Your task to perform on an android device: Go to internet settings Image 0: 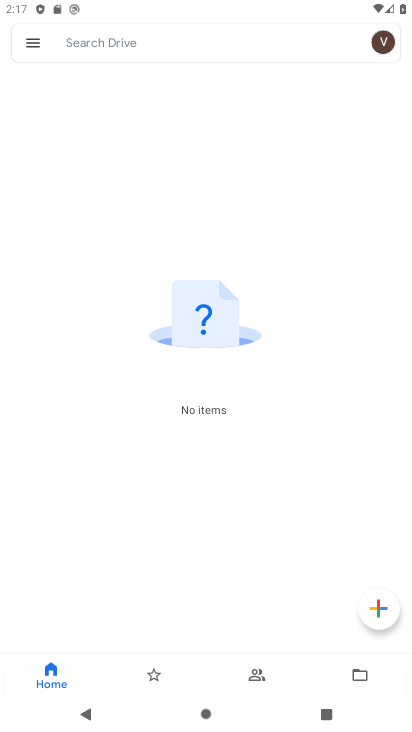
Step 0: press home button
Your task to perform on an android device: Go to internet settings Image 1: 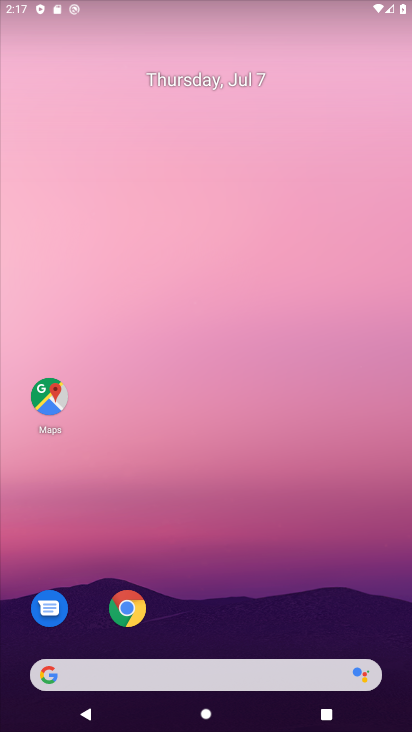
Step 1: drag from (241, 566) to (239, 88)
Your task to perform on an android device: Go to internet settings Image 2: 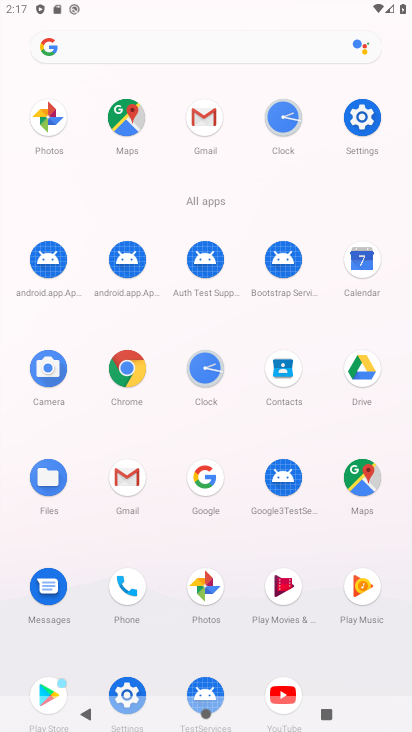
Step 2: click (362, 115)
Your task to perform on an android device: Go to internet settings Image 3: 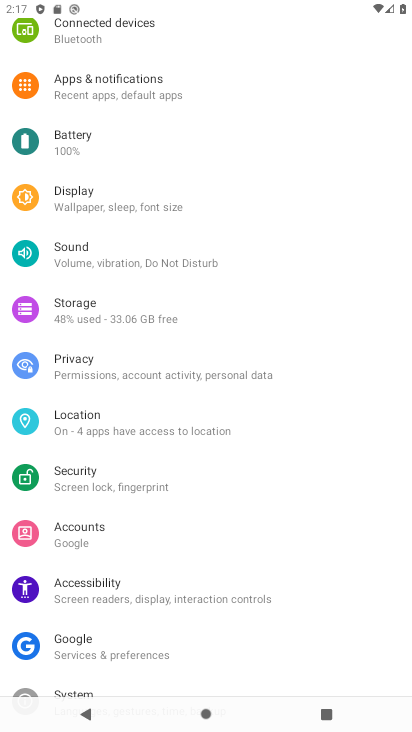
Step 3: drag from (125, 51) to (201, 302)
Your task to perform on an android device: Go to internet settings Image 4: 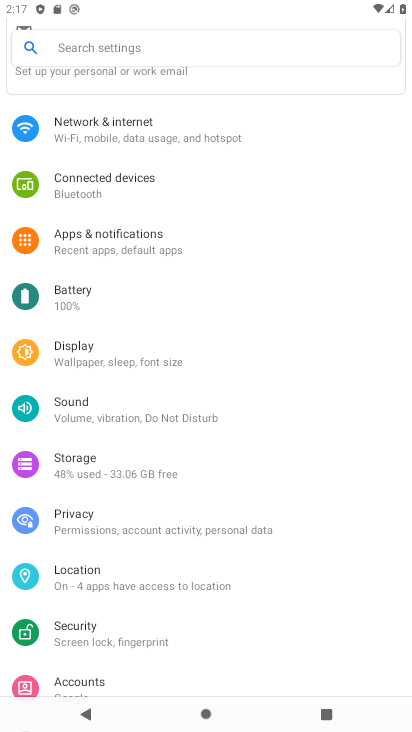
Step 4: click (107, 123)
Your task to perform on an android device: Go to internet settings Image 5: 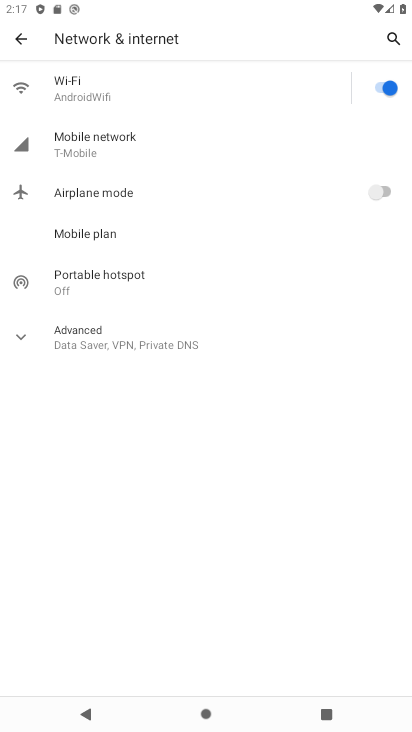
Step 5: click (101, 94)
Your task to perform on an android device: Go to internet settings Image 6: 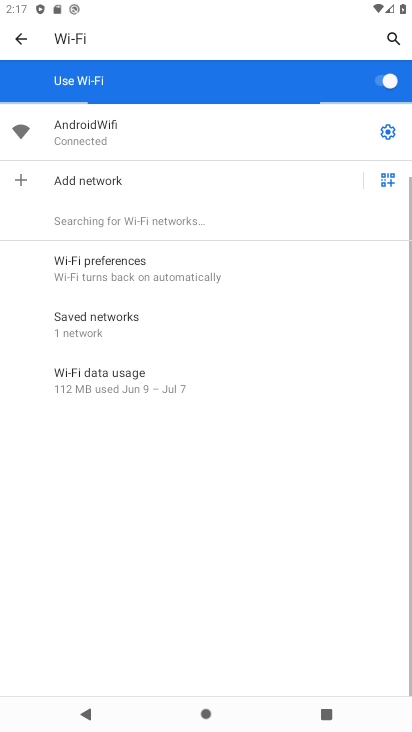
Step 6: click (383, 127)
Your task to perform on an android device: Go to internet settings Image 7: 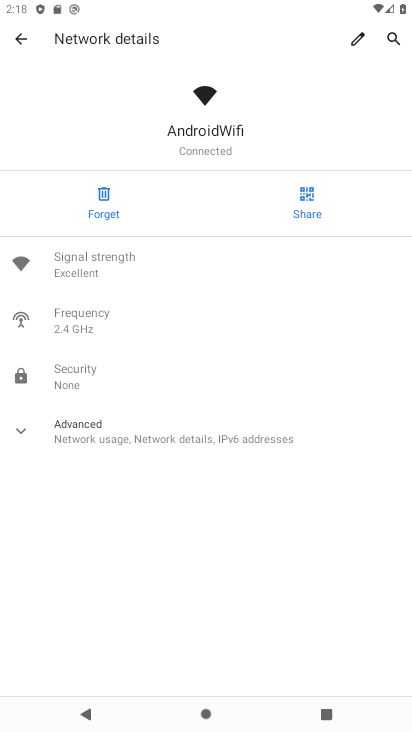
Step 7: task complete